Your task to perform on an android device: What's the weather going to be tomorrow? Image 0: 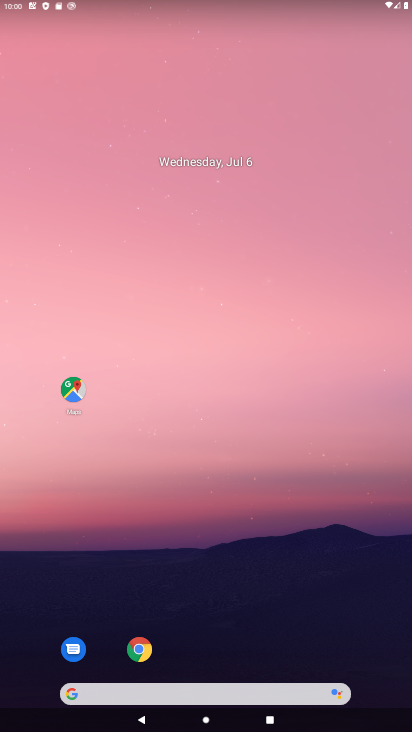
Step 0: drag from (178, 696) to (256, 238)
Your task to perform on an android device: What's the weather going to be tomorrow? Image 1: 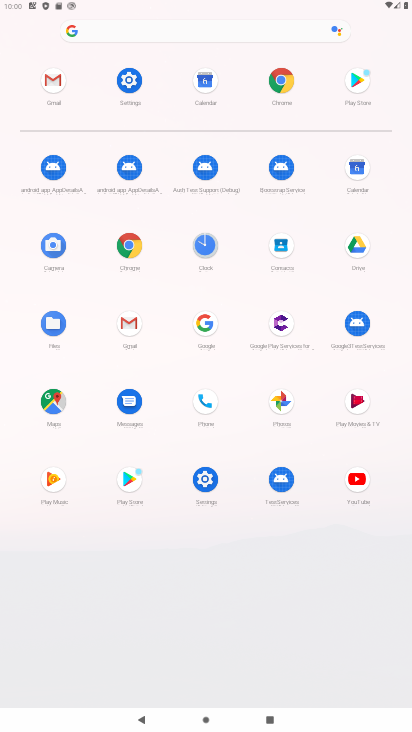
Step 1: click (116, 245)
Your task to perform on an android device: What's the weather going to be tomorrow? Image 2: 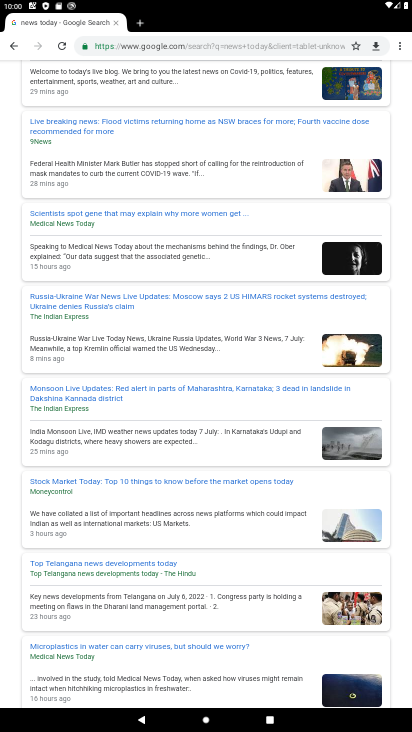
Step 2: click (17, 50)
Your task to perform on an android device: What's the weather going to be tomorrow? Image 3: 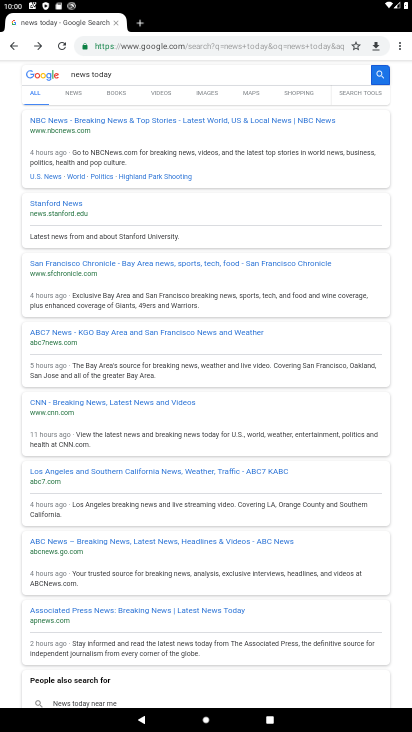
Step 3: click (117, 74)
Your task to perform on an android device: What's the weather going to be tomorrow? Image 4: 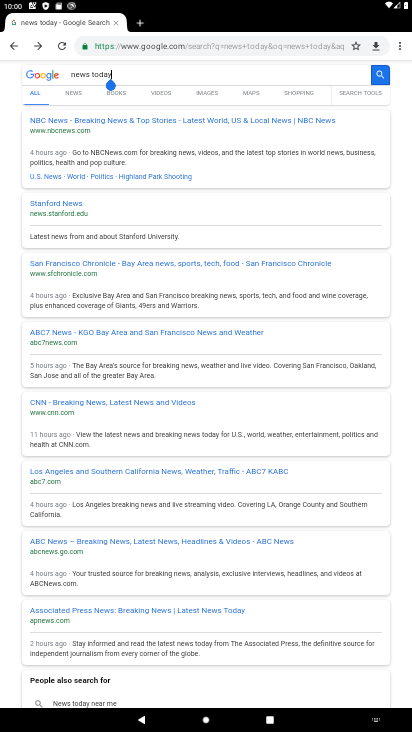
Step 4: click (303, 75)
Your task to perform on an android device: What's the weather going to be tomorrow? Image 5: 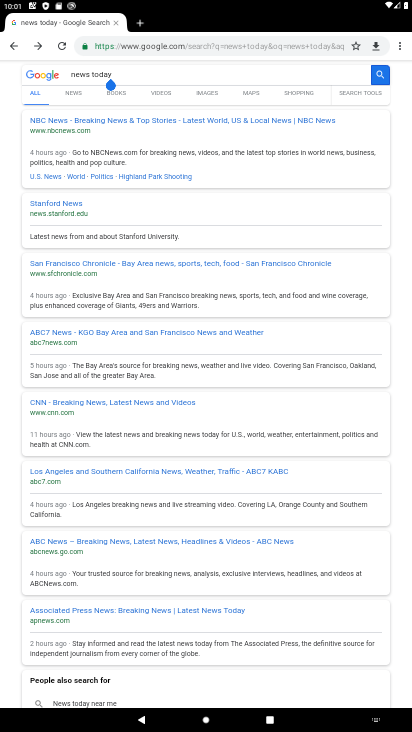
Step 5: click (34, 78)
Your task to perform on an android device: What's the weather going to be tomorrow? Image 6: 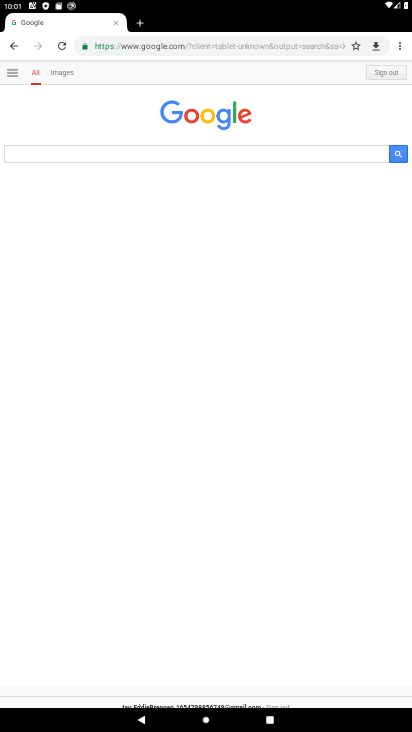
Step 6: click (200, 148)
Your task to perform on an android device: What's the weather going to be tomorrow? Image 7: 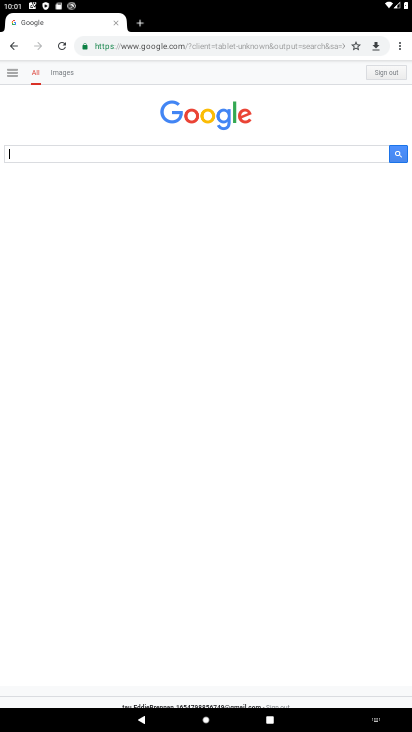
Step 7: type "weather tomorrow"
Your task to perform on an android device: What's the weather going to be tomorrow? Image 8: 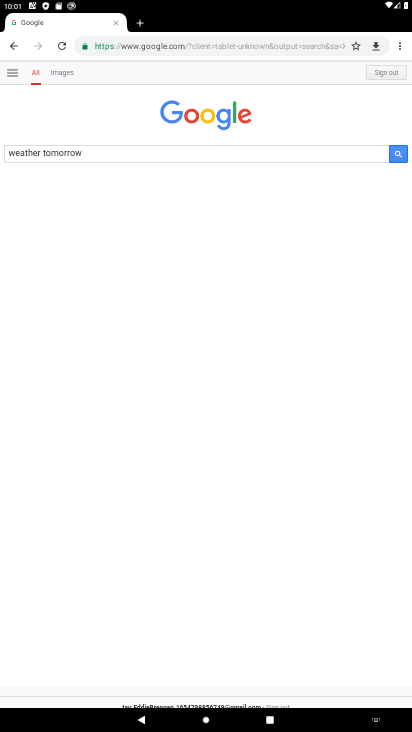
Step 8: click (394, 155)
Your task to perform on an android device: What's the weather going to be tomorrow? Image 9: 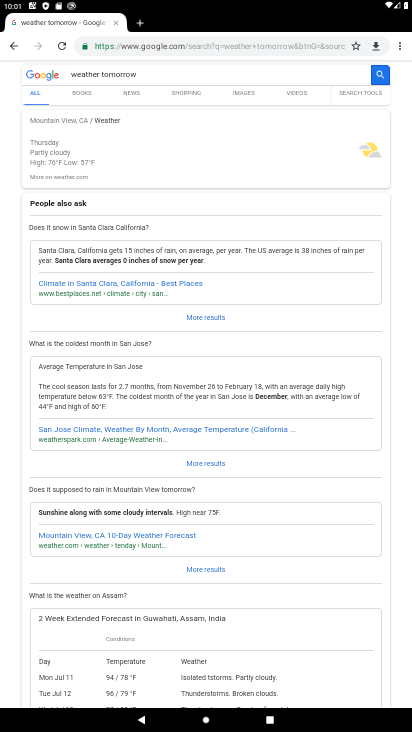
Step 9: task complete